Your task to perform on an android device: Open Chrome and go to the settings page Image 0: 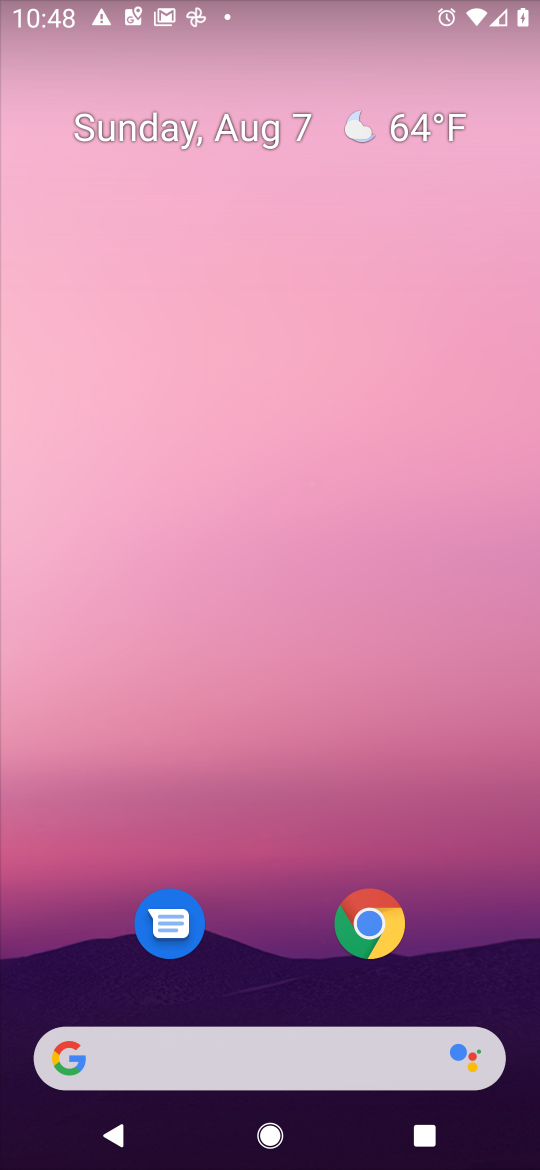
Step 0: drag from (487, 836) to (373, 133)
Your task to perform on an android device: Open Chrome and go to the settings page Image 1: 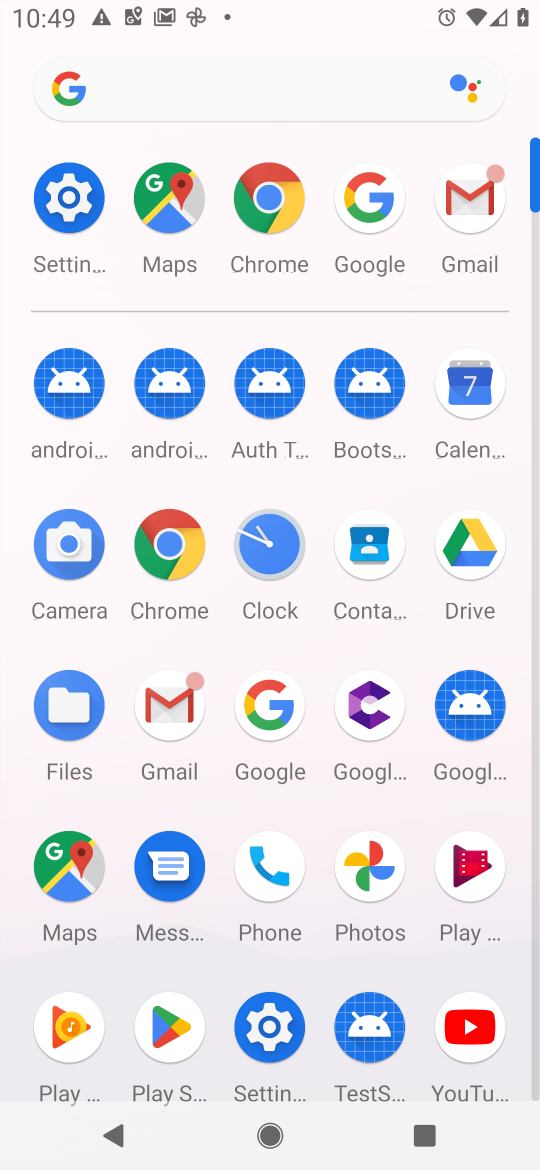
Step 1: click (191, 549)
Your task to perform on an android device: Open Chrome and go to the settings page Image 2: 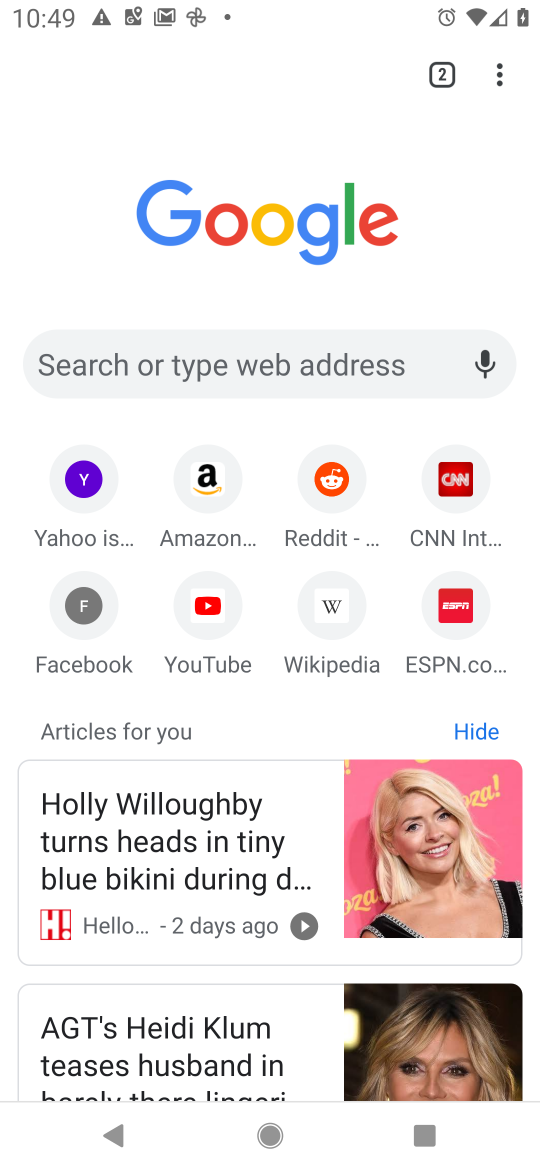
Step 2: click (506, 63)
Your task to perform on an android device: Open Chrome and go to the settings page Image 3: 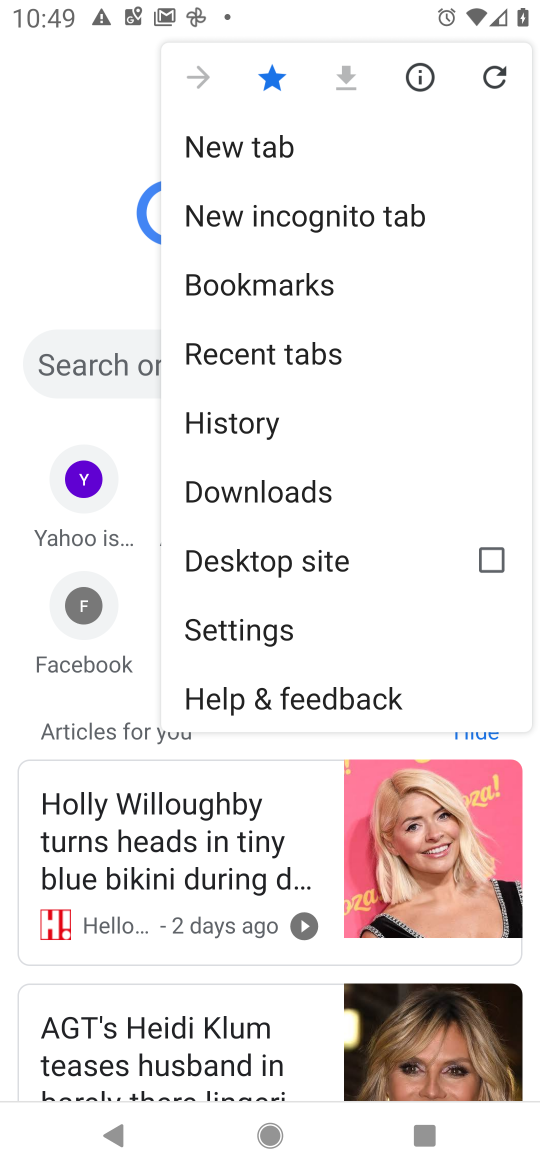
Step 3: click (240, 646)
Your task to perform on an android device: Open Chrome and go to the settings page Image 4: 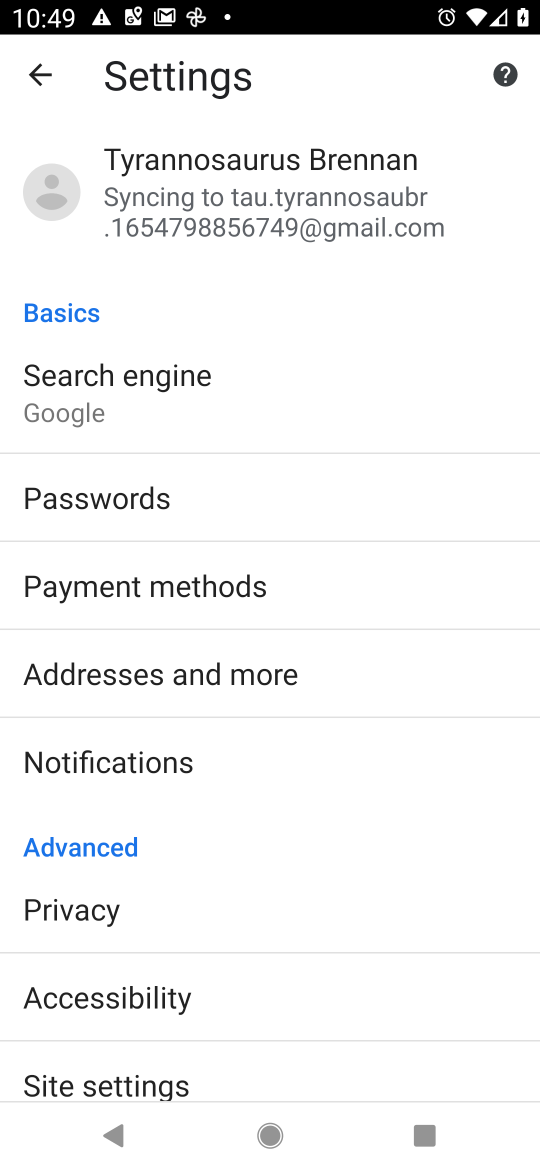
Step 4: task complete